Your task to perform on an android device: Open sound settings Image 0: 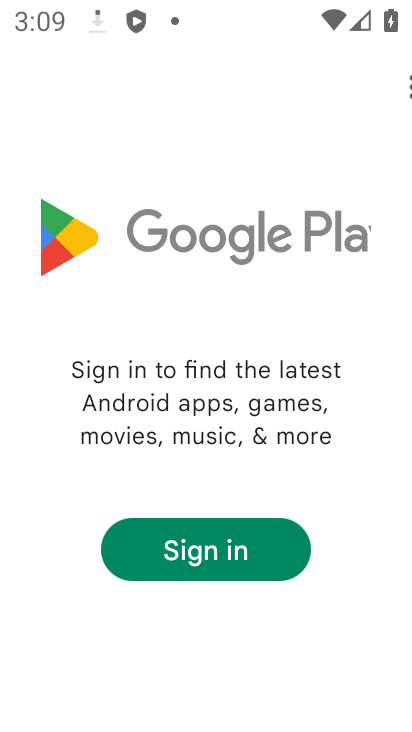
Step 0: press back button
Your task to perform on an android device: Open sound settings Image 1: 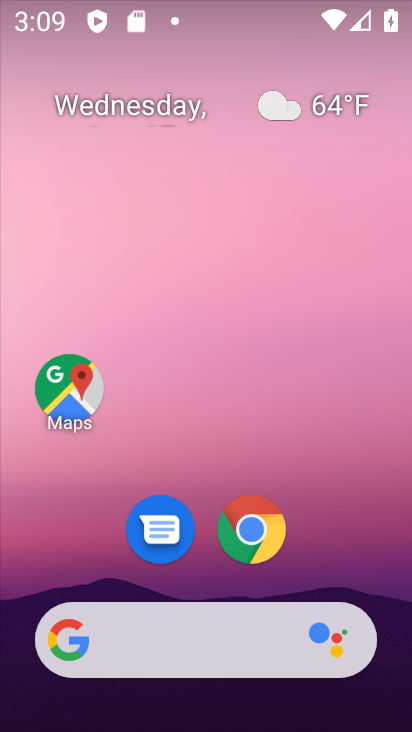
Step 1: drag from (224, 634) to (260, 42)
Your task to perform on an android device: Open sound settings Image 2: 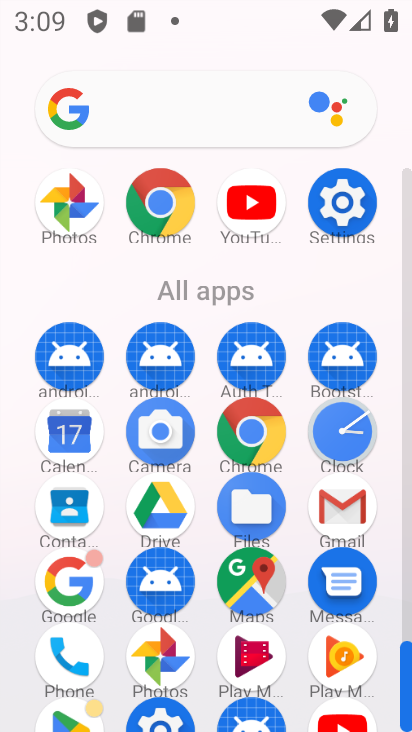
Step 2: click (346, 192)
Your task to perform on an android device: Open sound settings Image 3: 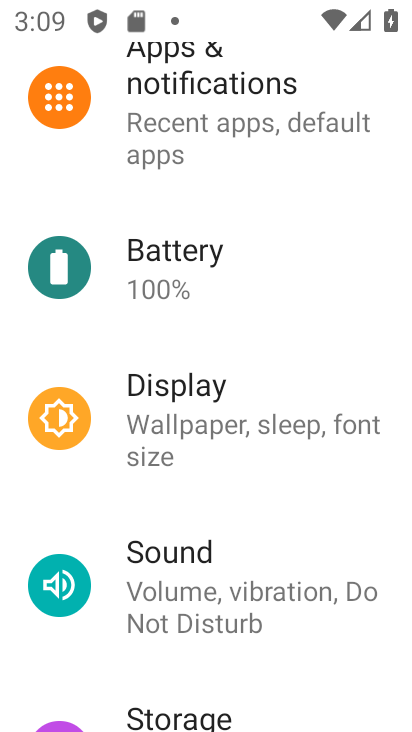
Step 3: click (192, 543)
Your task to perform on an android device: Open sound settings Image 4: 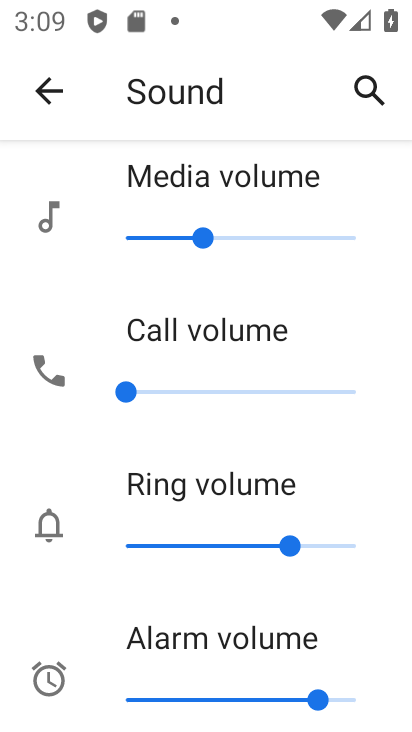
Step 4: task complete